Your task to perform on an android device: Open Maps and search for coffee Image 0: 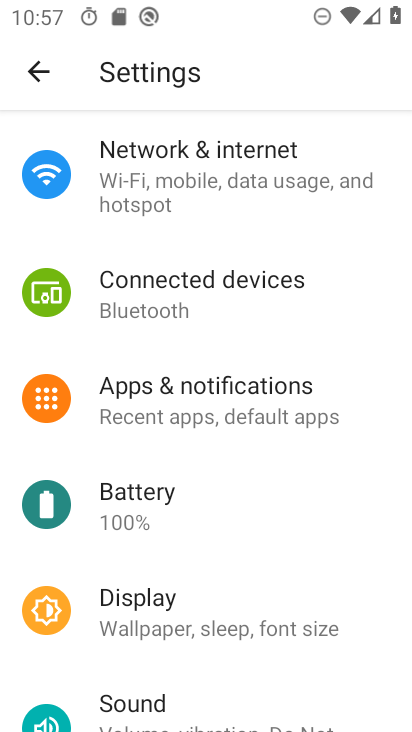
Step 0: press home button
Your task to perform on an android device: Open Maps and search for coffee Image 1: 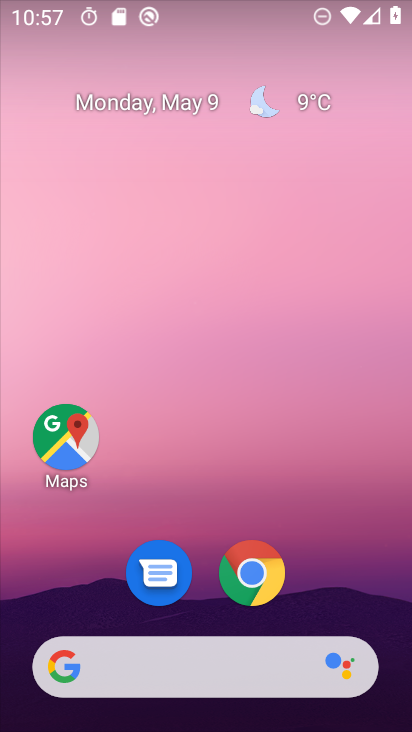
Step 1: click (68, 434)
Your task to perform on an android device: Open Maps and search for coffee Image 2: 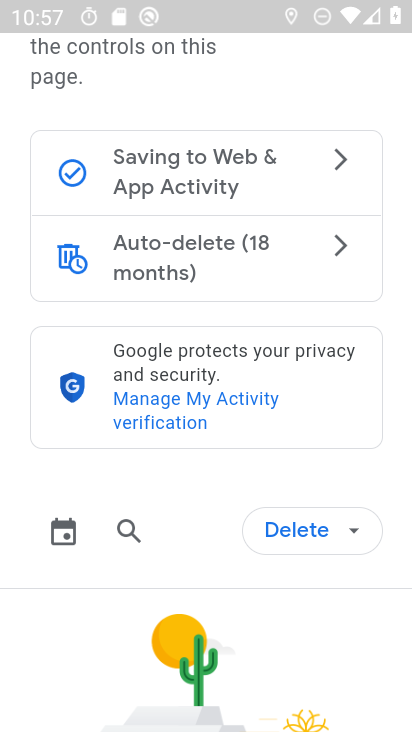
Step 2: press back button
Your task to perform on an android device: Open Maps and search for coffee Image 3: 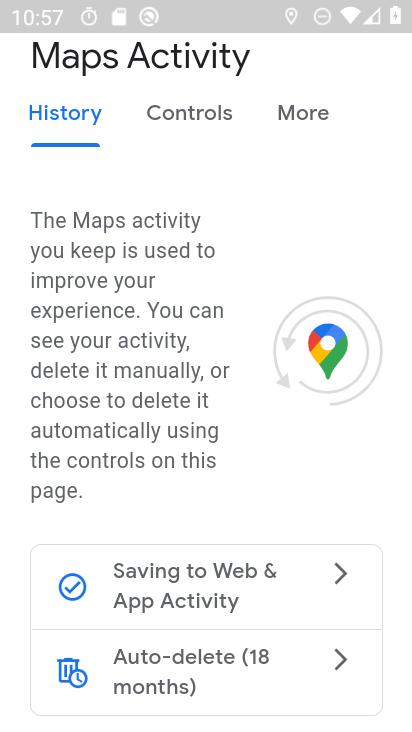
Step 3: press back button
Your task to perform on an android device: Open Maps and search for coffee Image 4: 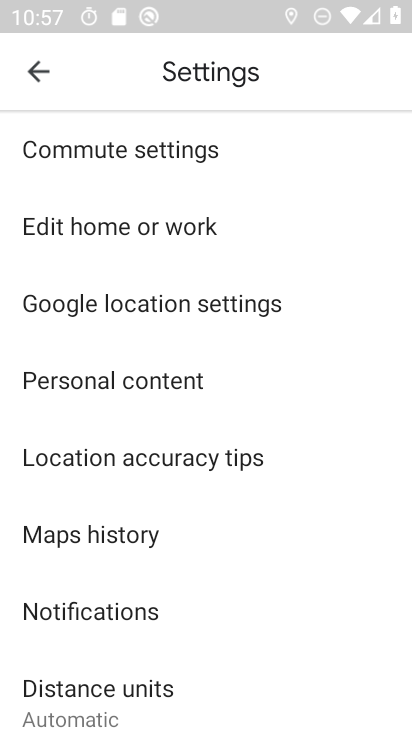
Step 4: click (39, 63)
Your task to perform on an android device: Open Maps and search for coffee Image 5: 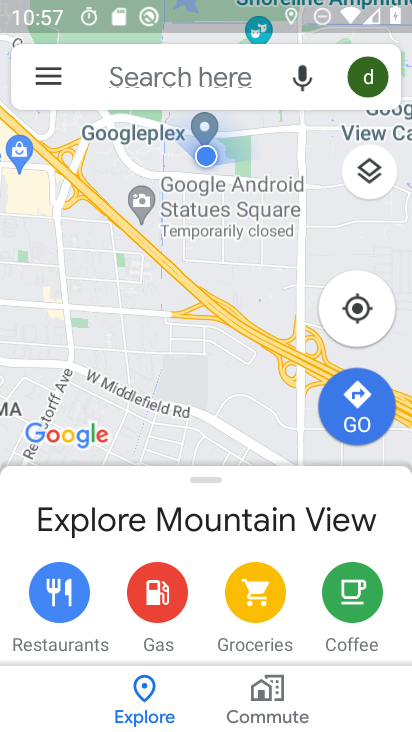
Step 5: click (140, 77)
Your task to perform on an android device: Open Maps and search for coffee Image 6: 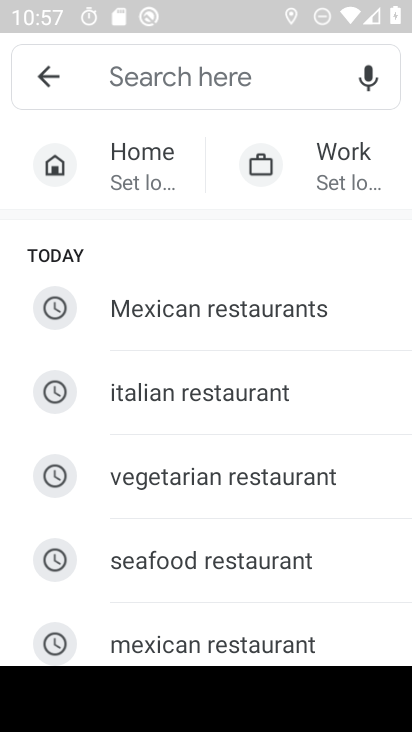
Step 6: type "coffee"
Your task to perform on an android device: Open Maps and search for coffee Image 7: 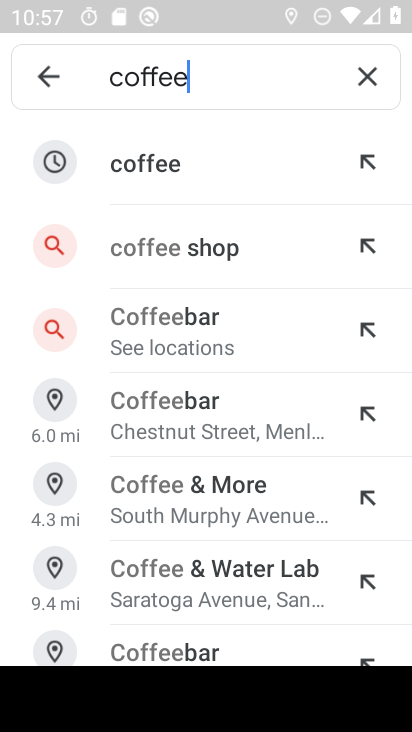
Step 7: click (158, 158)
Your task to perform on an android device: Open Maps and search for coffee Image 8: 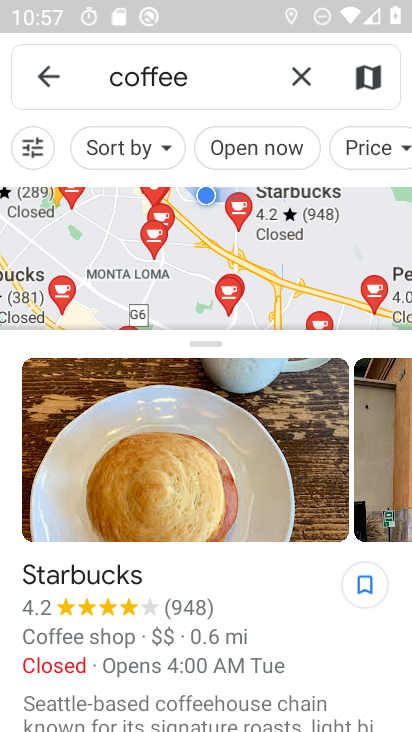
Step 8: task complete